Your task to perform on an android device: Is it going to rain tomorrow? Image 0: 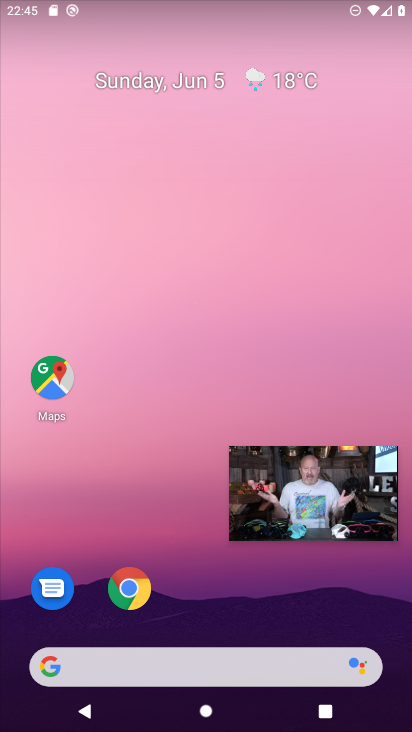
Step 0: click (286, 78)
Your task to perform on an android device: Is it going to rain tomorrow? Image 1: 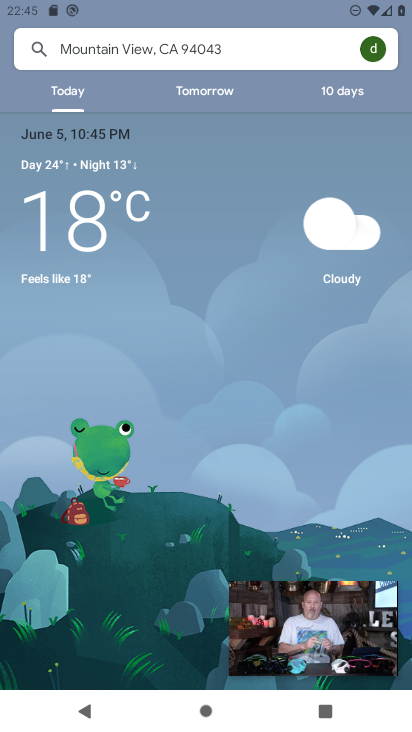
Step 1: click (205, 89)
Your task to perform on an android device: Is it going to rain tomorrow? Image 2: 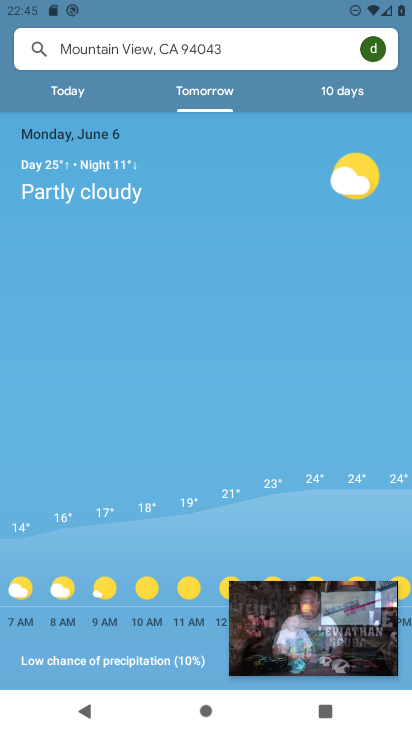
Step 2: task complete